Your task to perform on an android device: turn off picture-in-picture Image 0: 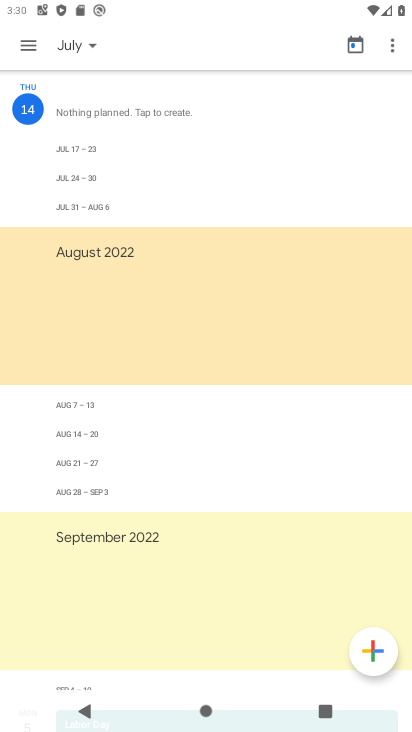
Step 0: press home button
Your task to perform on an android device: turn off picture-in-picture Image 1: 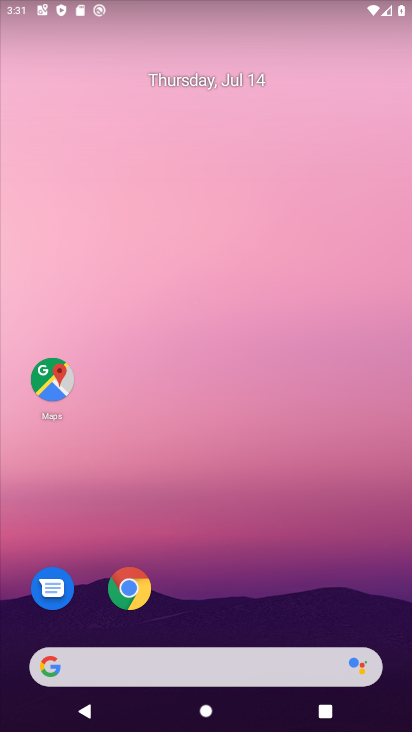
Step 1: drag from (280, 541) to (278, 17)
Your task to perform on an android device: turn off picture-in-picture Image 2: 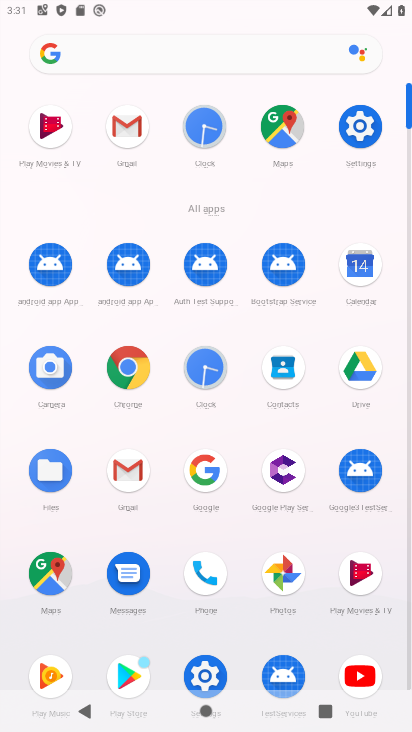
Step 2: click (135, 378)
Your task to perform on an android device: turn off picture-in-picture Image 3: 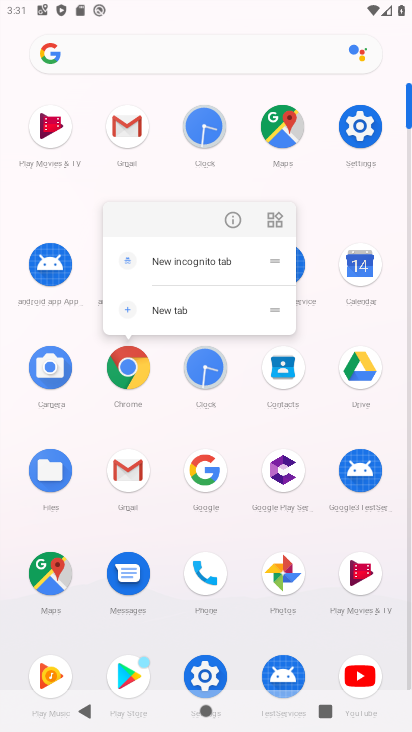
Step 3: click (232, 227)
Your task to perform on an android device: turn off picture-in-picture Image 4: 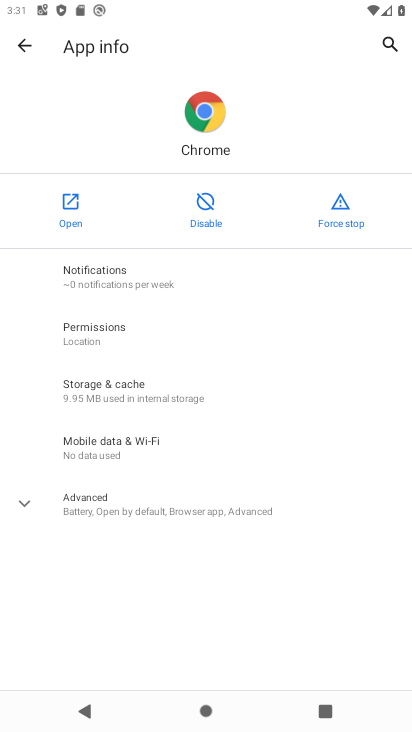
Step 4: click (105, 513)
Your task to perform on an android device: turn off picture-in-picture Image 5: 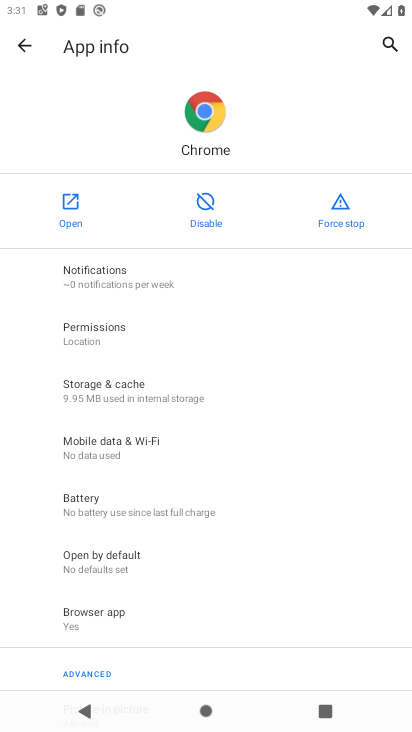
Step 5: drag from (126, 592) to (117, 248)
Your task to perform on an android device: turn off picture-in-picture Image 6: 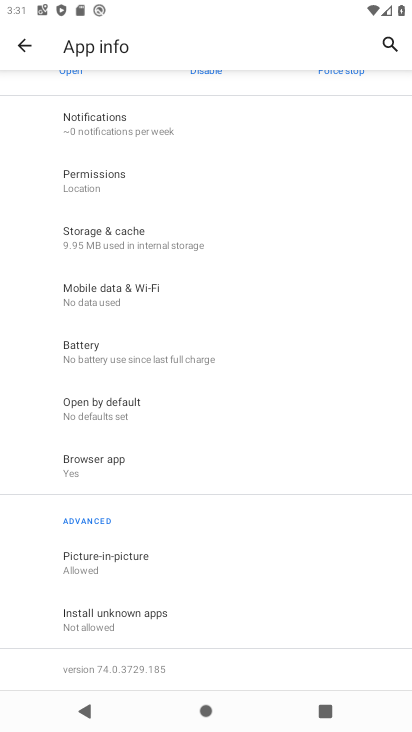
Step 6: click (101, 562)
Your task to perform on an android device: turn off picture-in-picture Image 7: 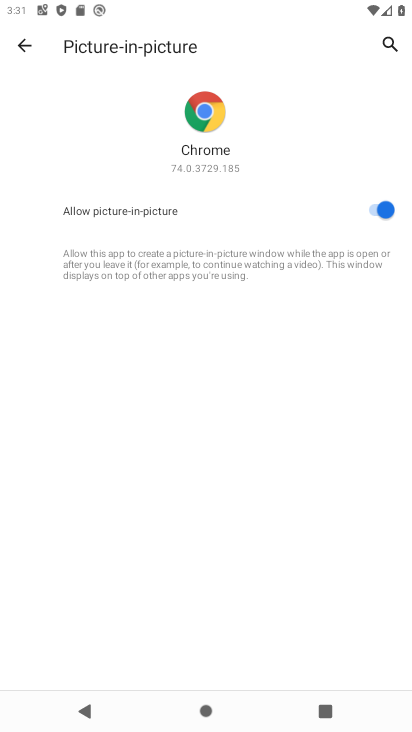
Step 7: click (379, 208)
Your task to perform on an android device: turn off picture-in-picture Image 8: 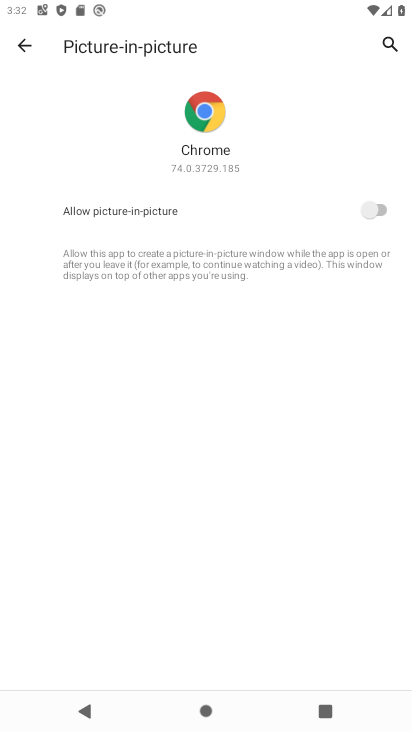
Step 8: task complete